Your task to perform on an android device: uninstall "Google Chat" Image 0: 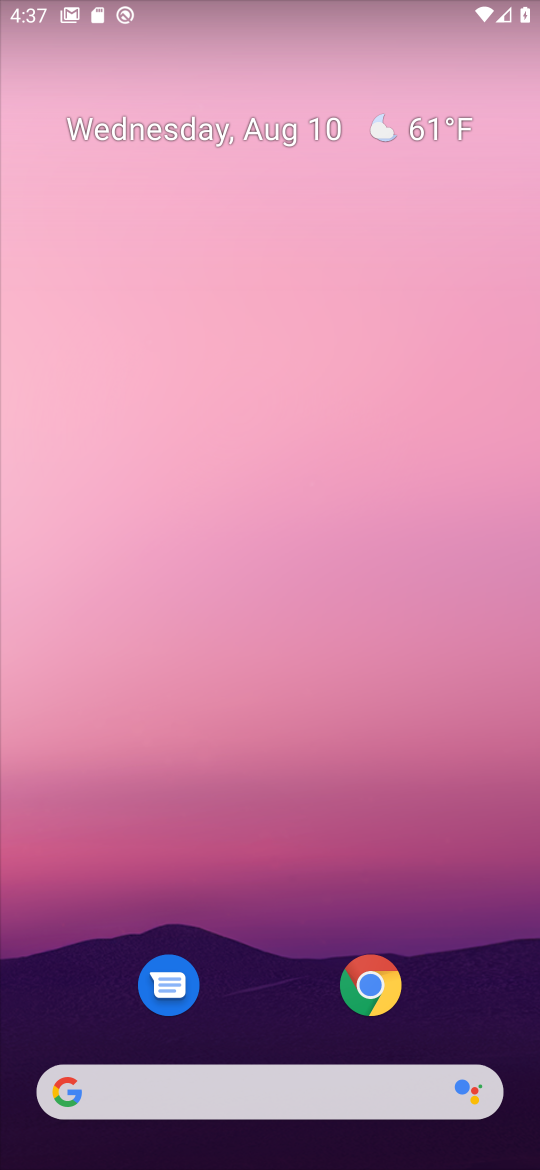
Step 0: click (250, 146)
Your task to perform on an android device: uninstall "Google Chat" Image 1: 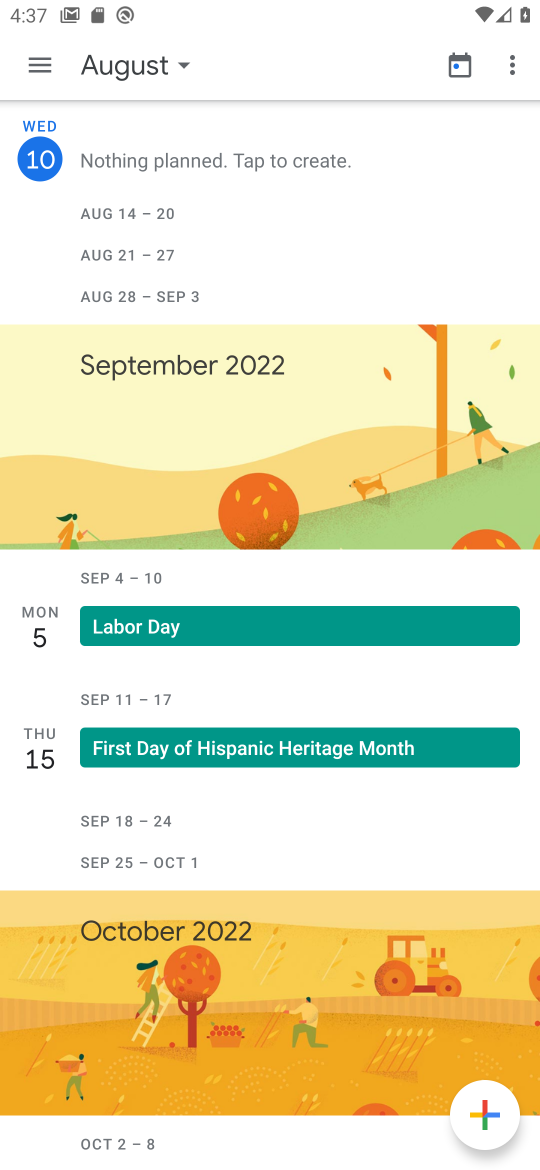
Step 1: press home button
Your task to perform on an android device: uninstall "Google Chat" Image 2: 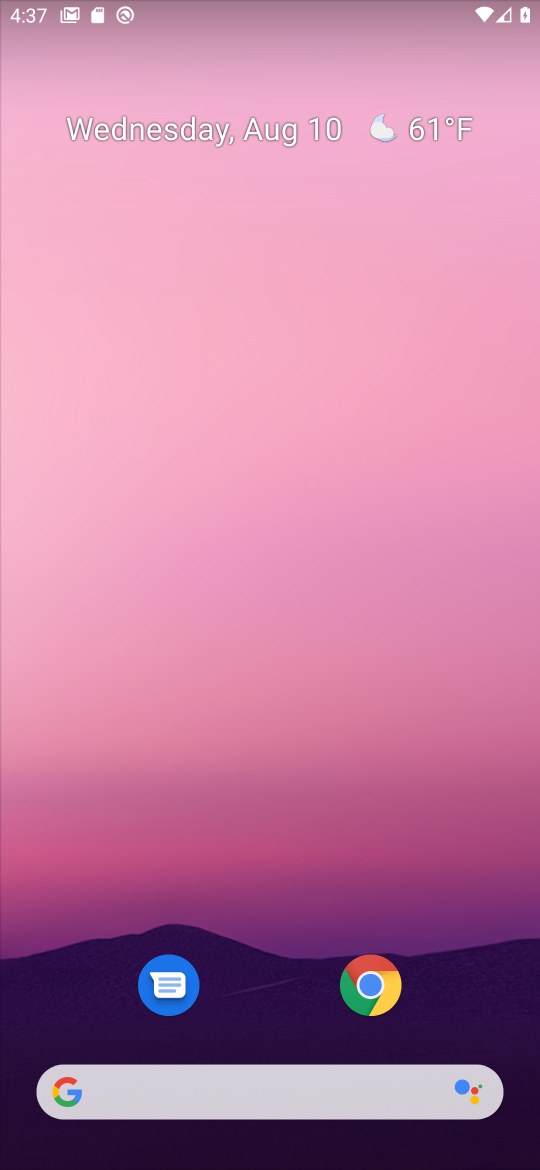
Step 2: press home button
Your task to perform on an android device: uninstall "Google Chat" Image 3: 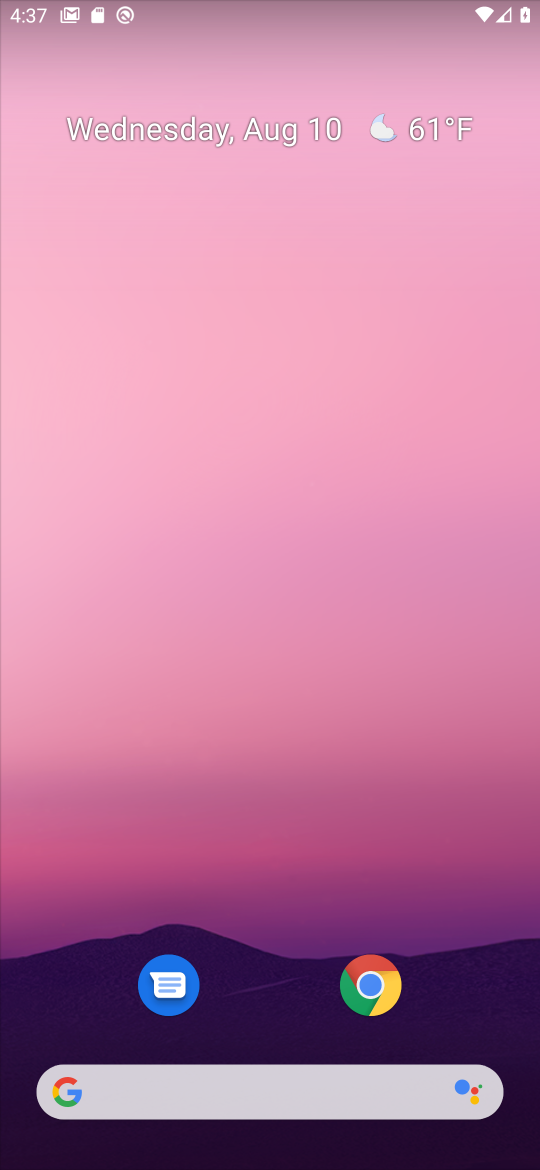
Step 3: drag from (269, 606) to (348, 30)
Your task to perform on an android device: uninstall "Google Chat" Image 4: 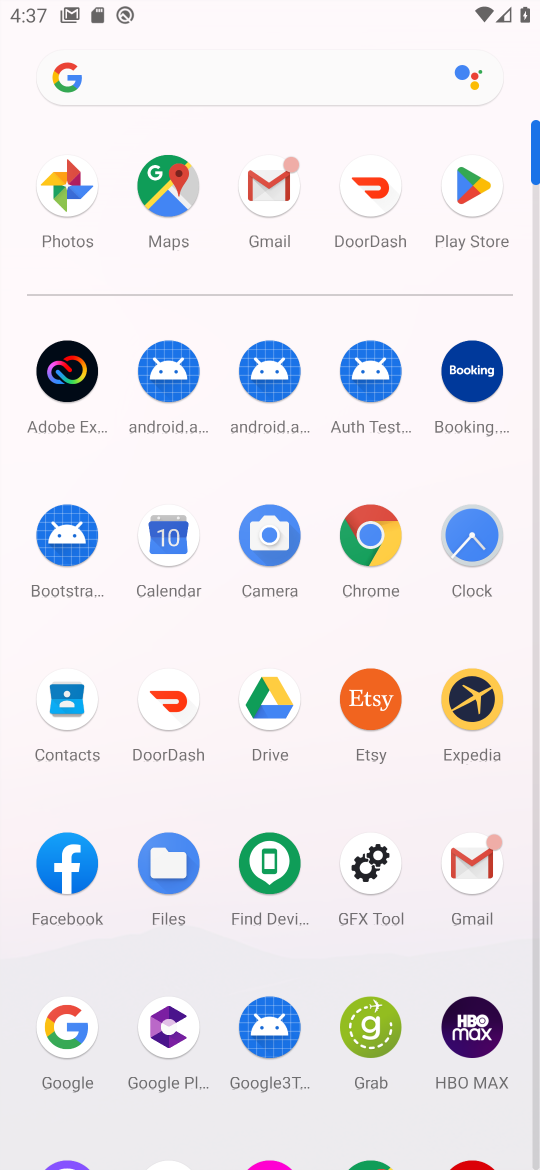
Step 4: click (469, 208)
Your task to perform on an android device: uninstall "Google Chat" Image 5: 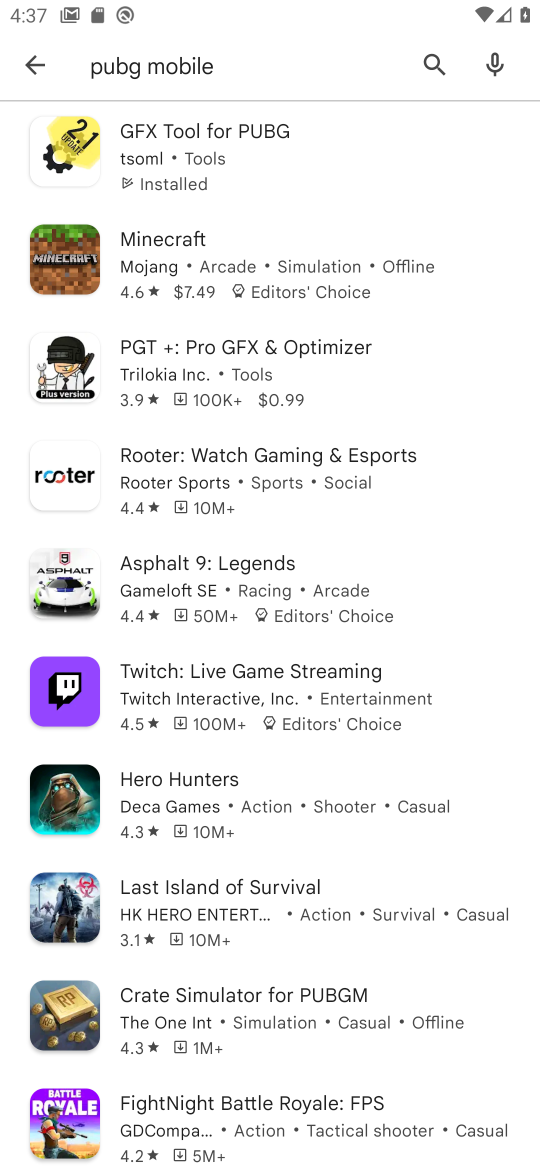
Step 5: click (30, 50)
Your task to perform on an android device: uninstall "Google Chat" Image 6: 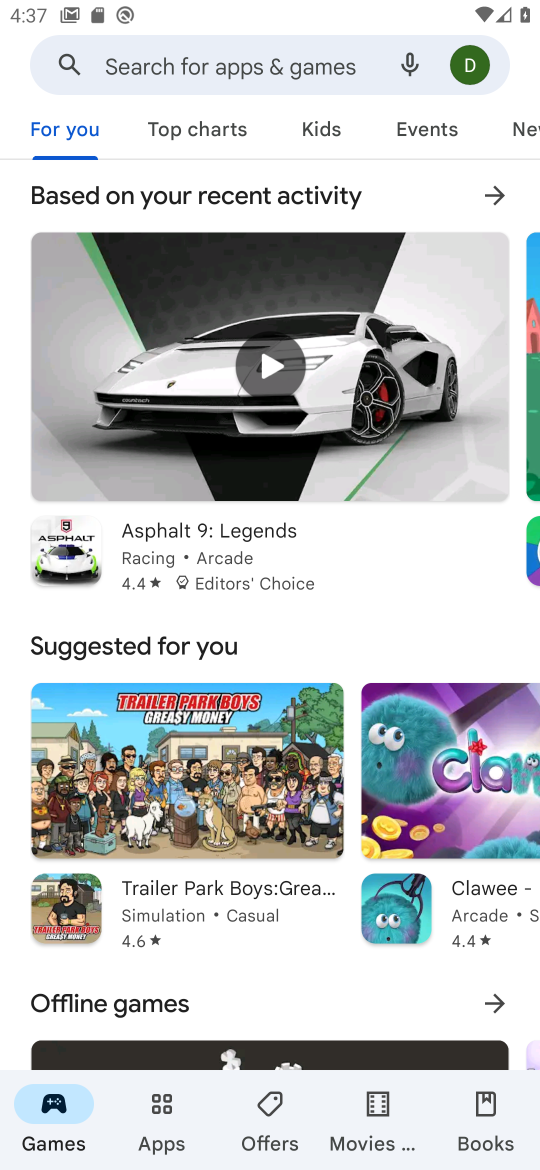
Step 6: click (126, 59)
Your task to perform on an android device: uninstall "Google Chat" Image 7: 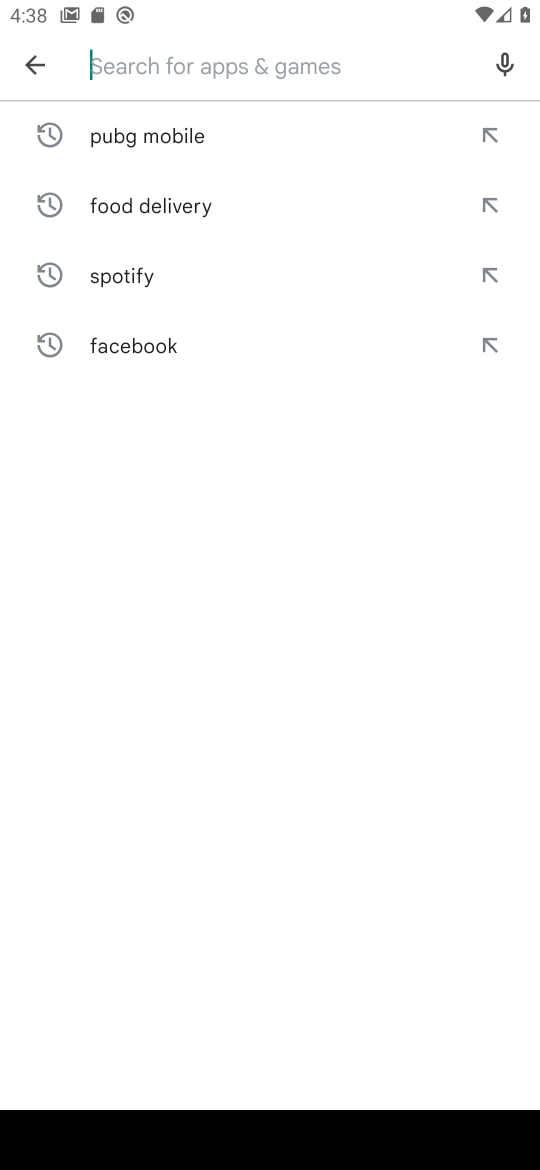
Step 7: type "Google Chat"
Your task to perform on an android device: uninstall "Google Chat" Image 8: 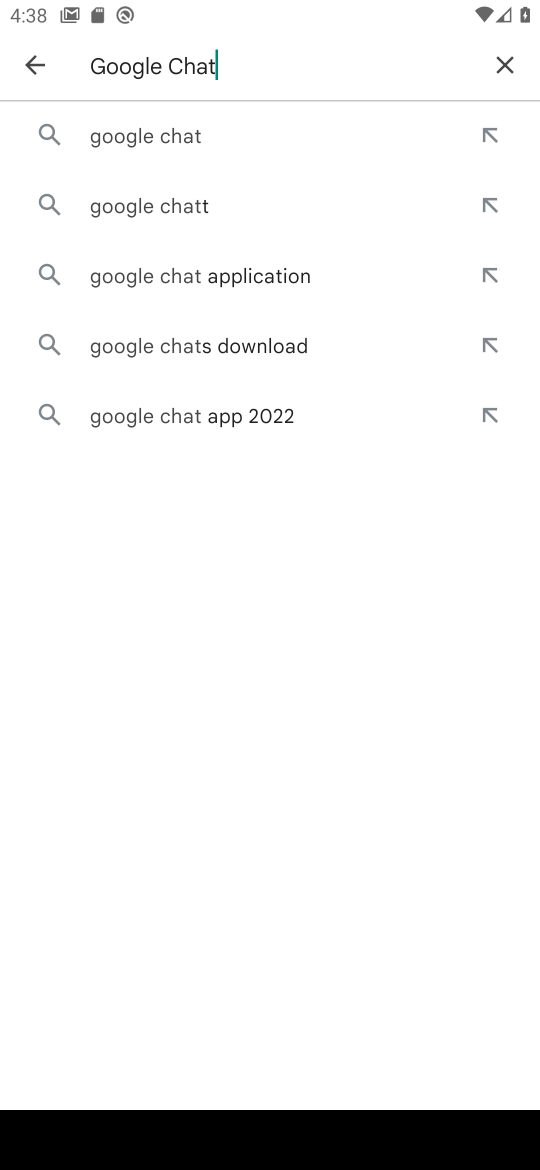
Step 8: click (184, 140)
Your task to perform on an android device: uninstall "Google Chat" Image 9: 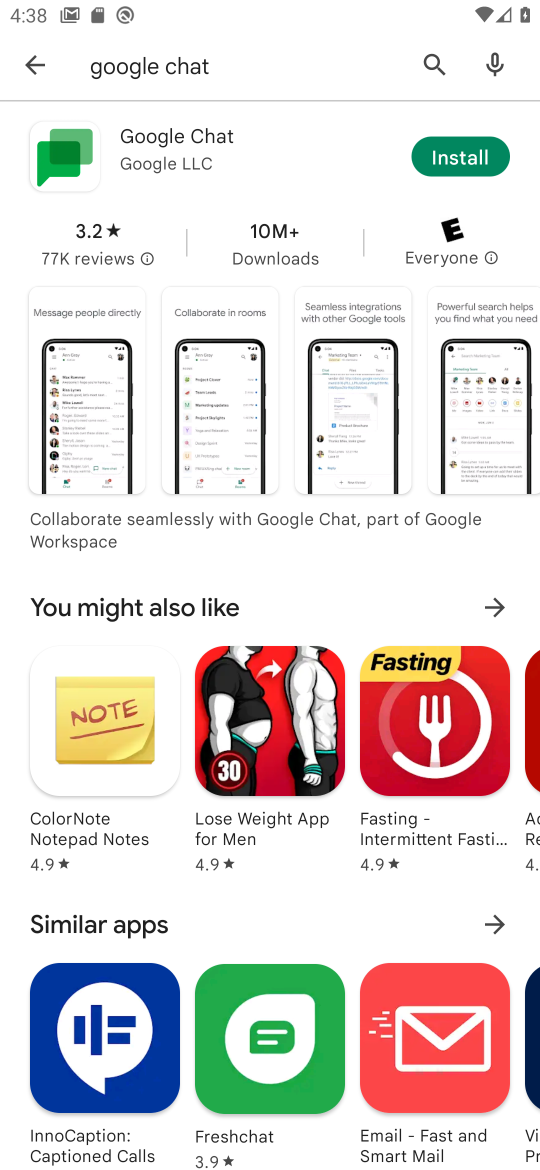
Step 9: task complete